Your task to perform on an android device: set the stopwatch Image 0: 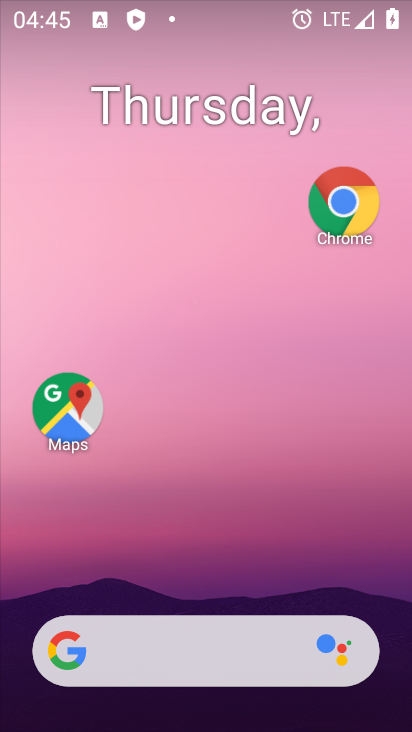
Step 0: drag from (223, 621) to (244, 3)
Your task to perform on an android device: set the stopwatch Image 1: 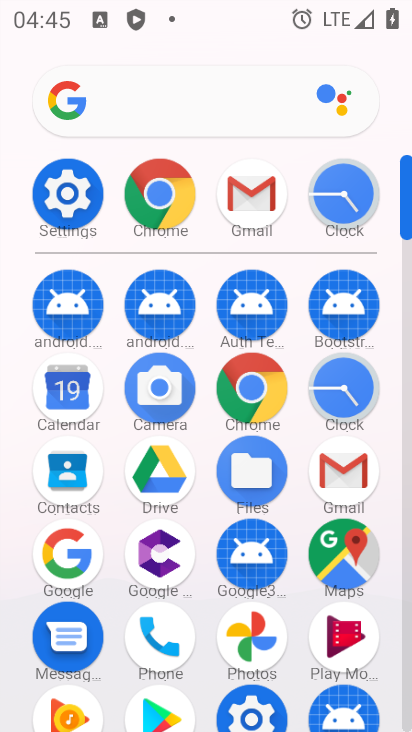
Step 1: click (337, 396)
Your task to perform on an android device: set the stopwatch Image 2: 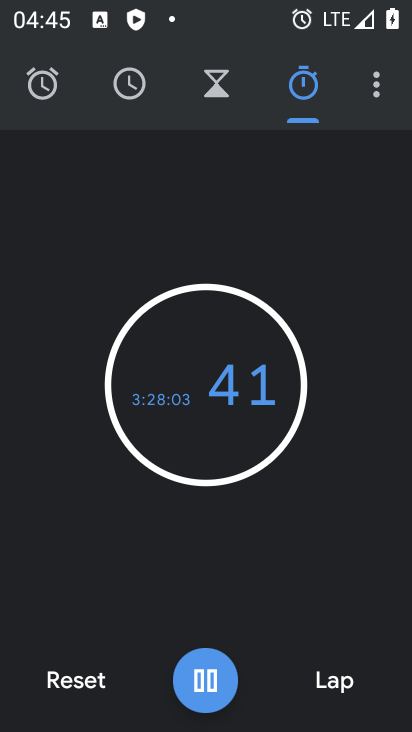
Step 2: task complete